Your task to perform on an android device: turn on notifications settings in the gmail app Image 0: 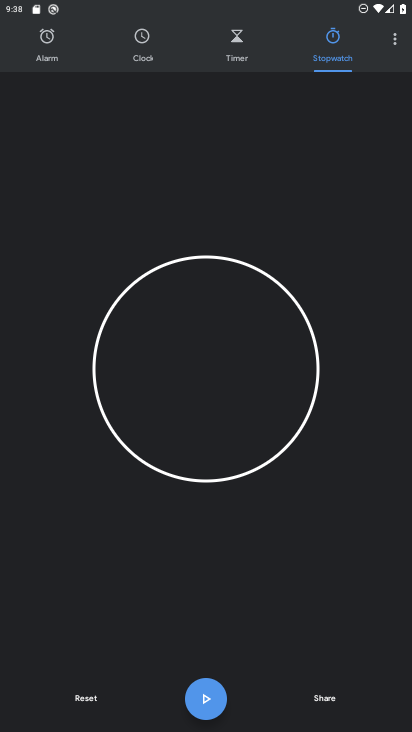
Step 0: press home button
Your task to perform on an android device: turn on notifications settings in the gmail app Image 1: 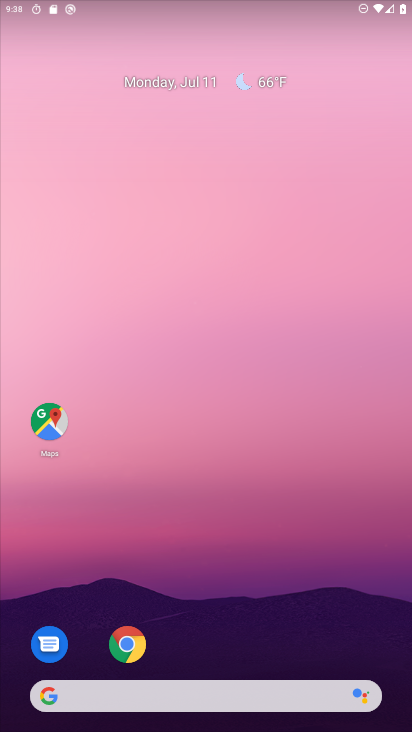
Step 1: drag from (358, 605) to (230, 122)
Your task to perform on an android device: turn on notifications settings in the gmail app Image 2: 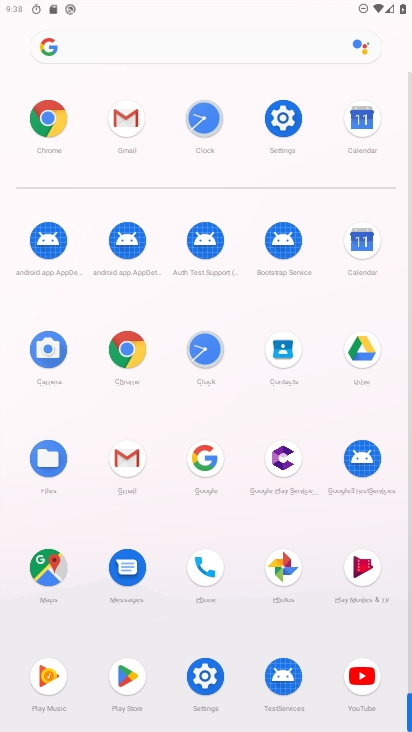
Step 2: click (135, 452)
Your task to perform on an android device: turn on notifications settings in the gmail app Image 3: 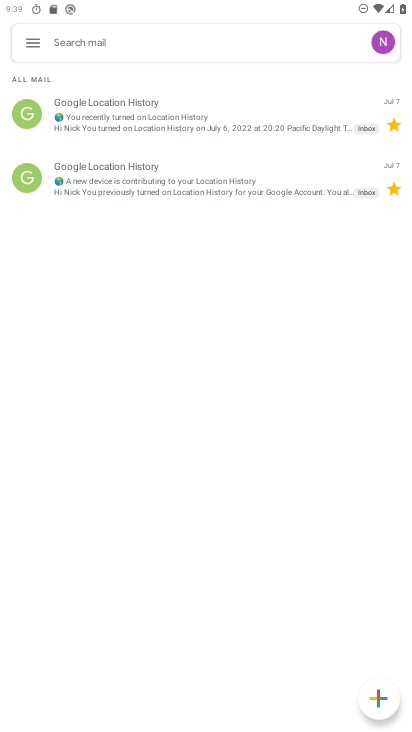
Step 3: click (36, 43)
Your task to perform on an android device: turn on notifications settings in the gmail app Image 4: 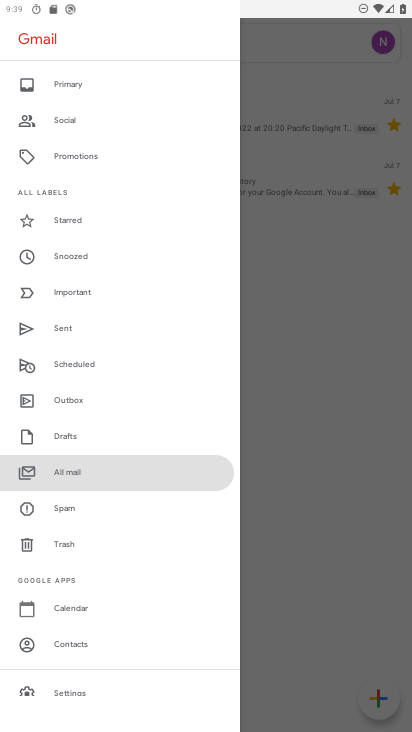
Step 4: click (68, 699)
Your task to perform on an android device: turn on notifications settings in the gmail app Image 5: 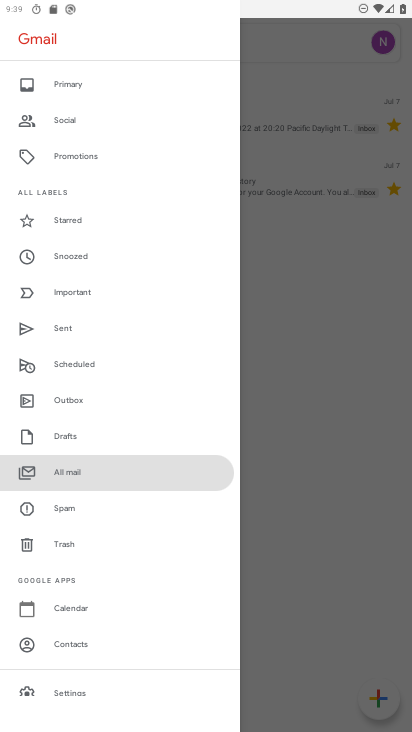
Step 5: click (68, 694)
Your task to perform on an android device: turn on notifications settings in the gmail app Image 6: 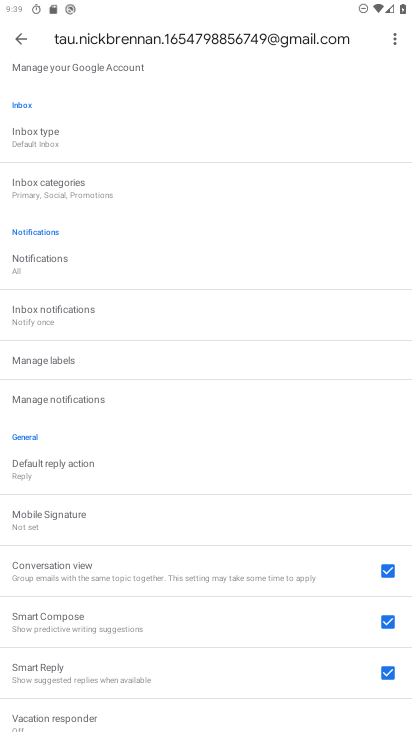
Step 6: click (95, 395)
Your task to perform on an android device: turn on notifications settings in the gmail app Image 7: 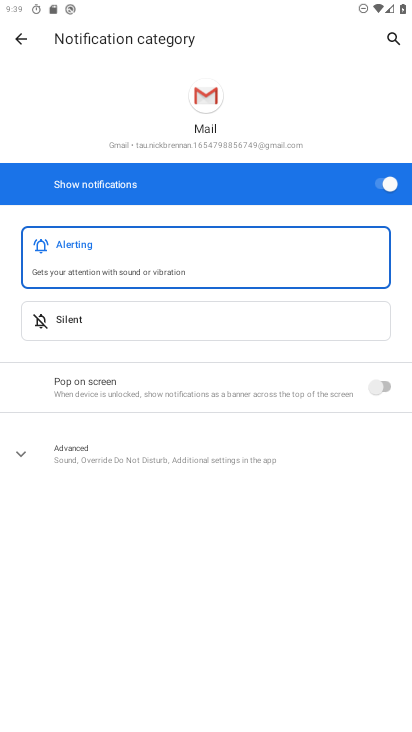
Step 7: task complete